Your task to perform on an android device: uninstall "Reddit" Image 0: 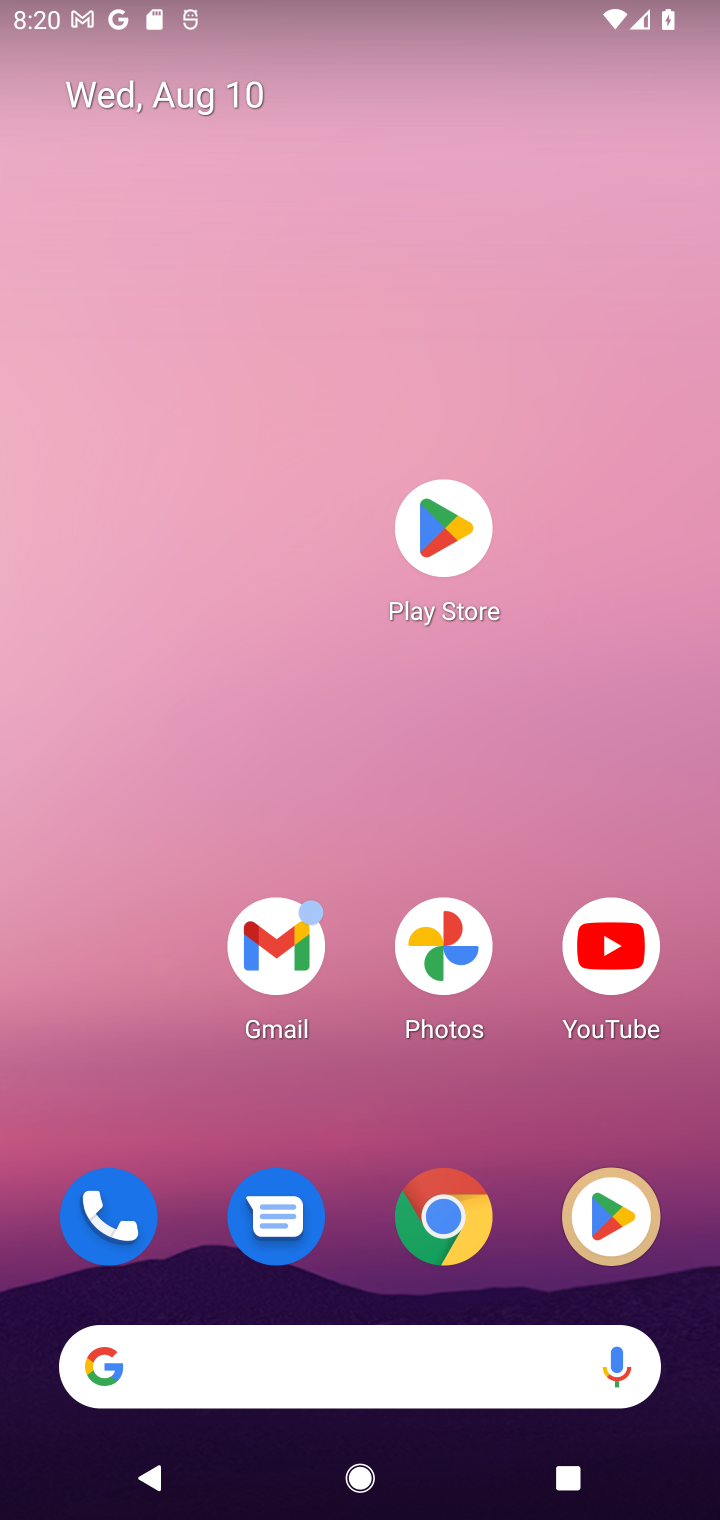
Step 0: click (450, 537)
Your task to perform on an android device: uninstall "Reddit" Image 1: 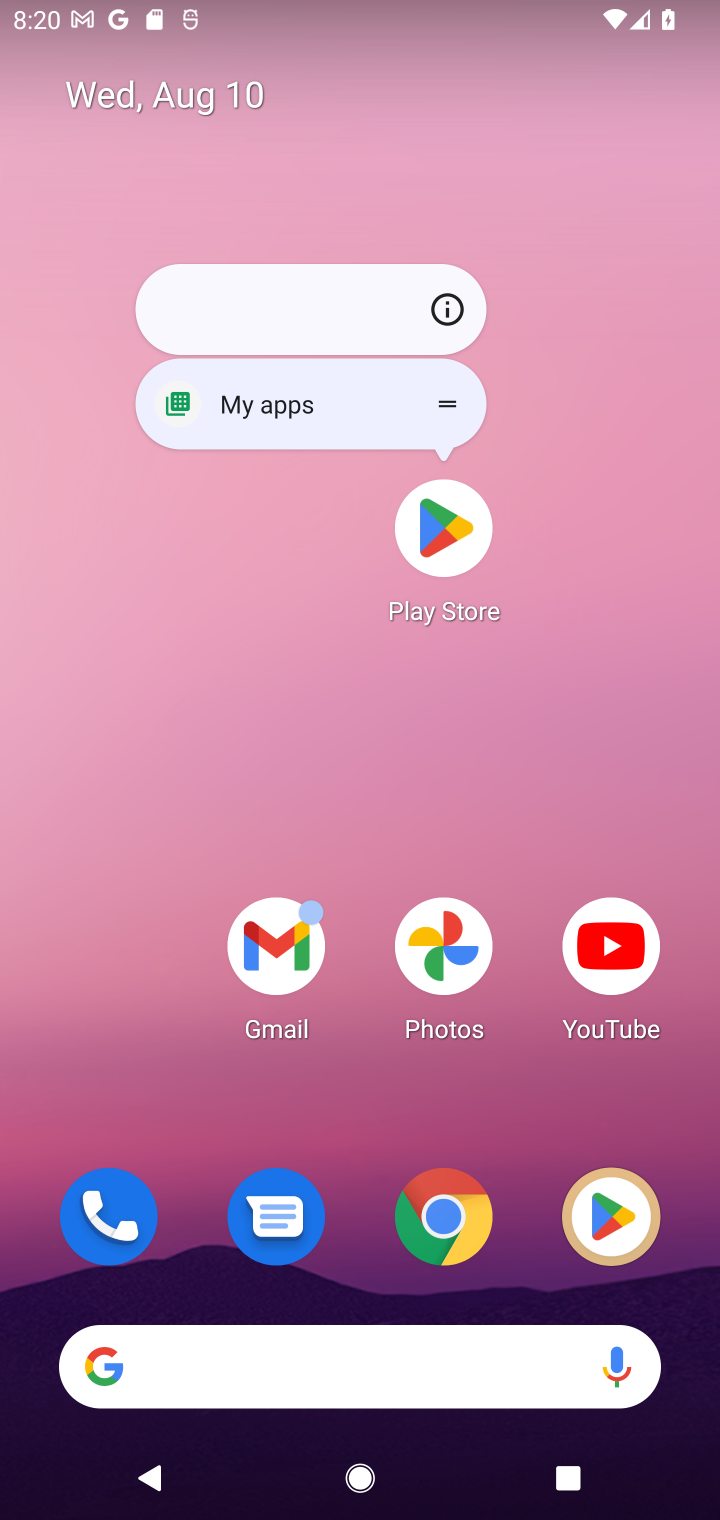
Step 1: click (450, 540)
Your task to perform on an android device: uninstall "Reddit" Image 2: 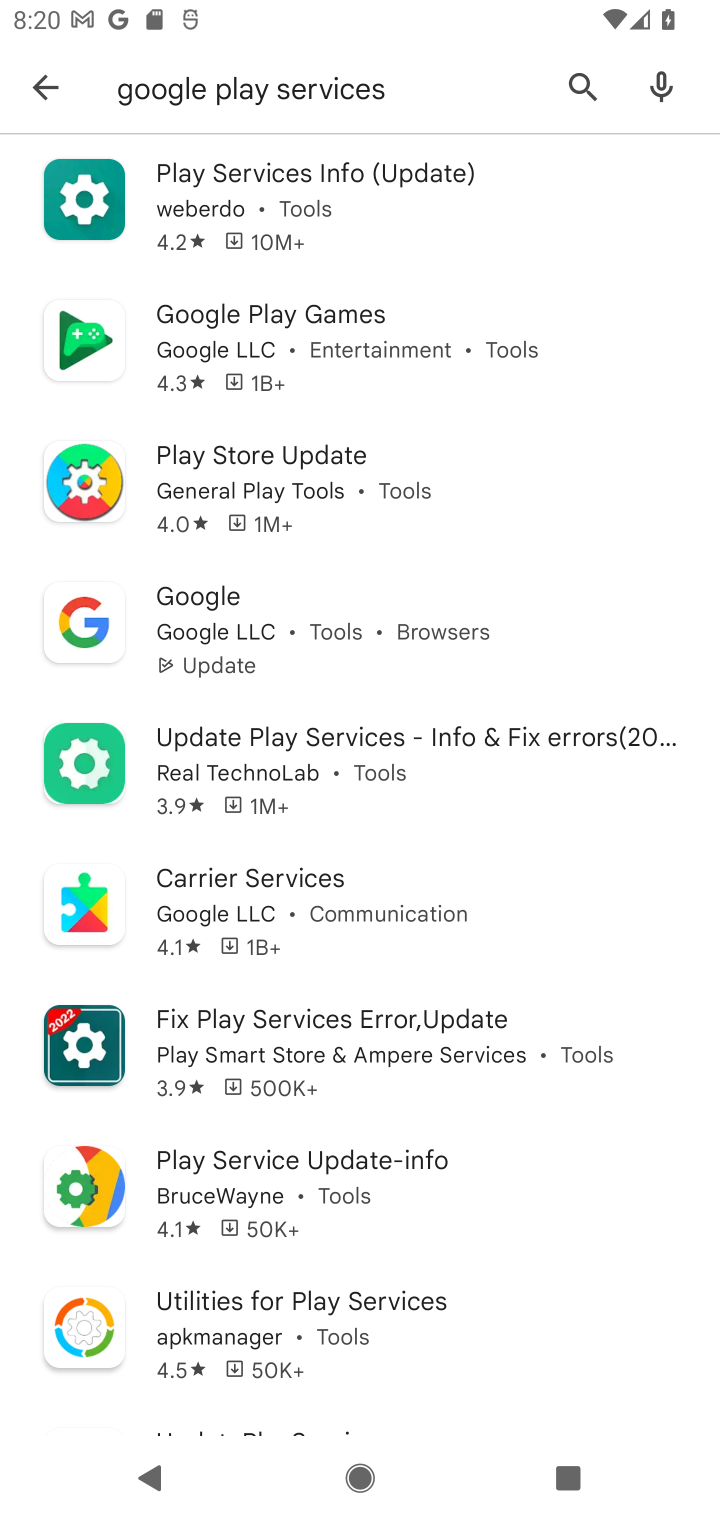
Step 2: click (576, 75)
Your task to perform on an android device: uninstall "Reddit" Image 3: 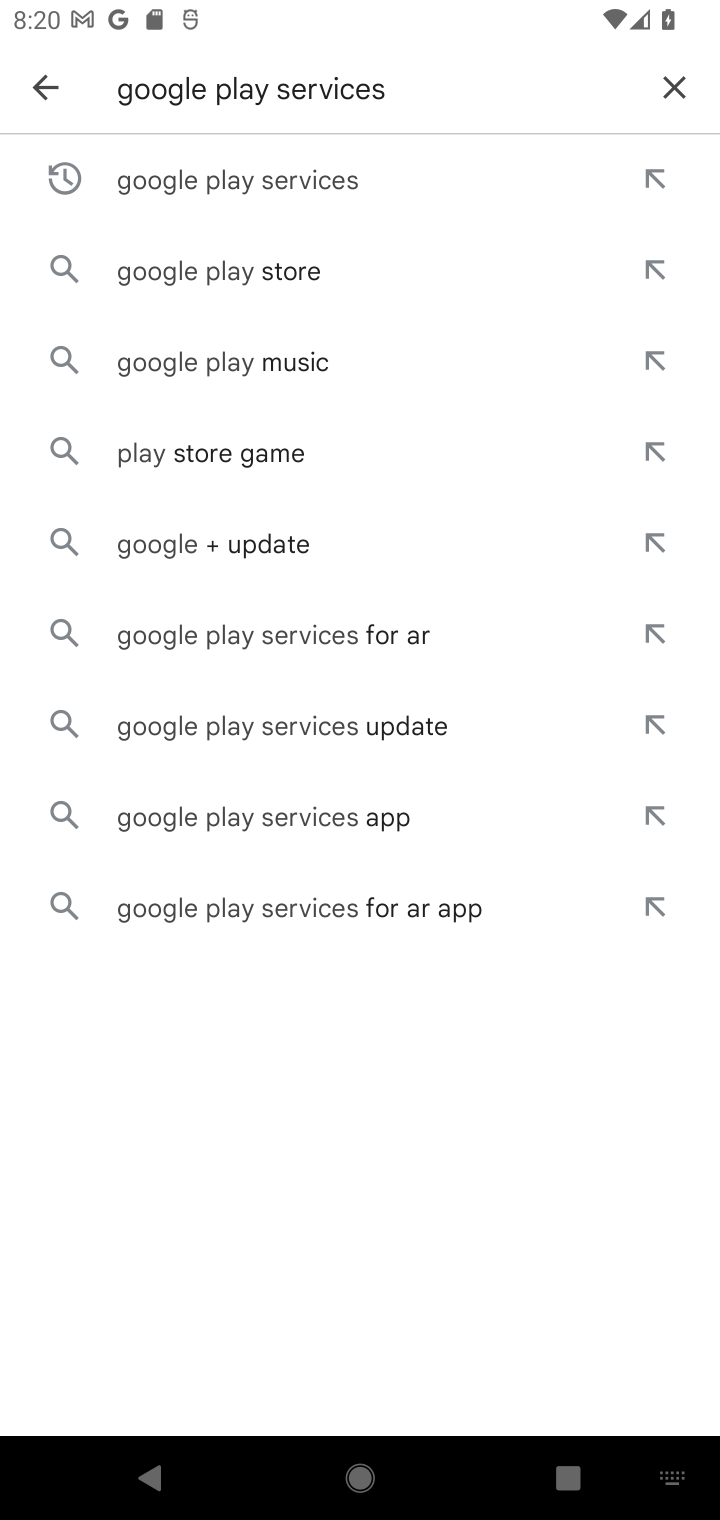
Step 3: click (666, 81)
Your task to perform on an android device: uninstall "Reddit" Image 4: 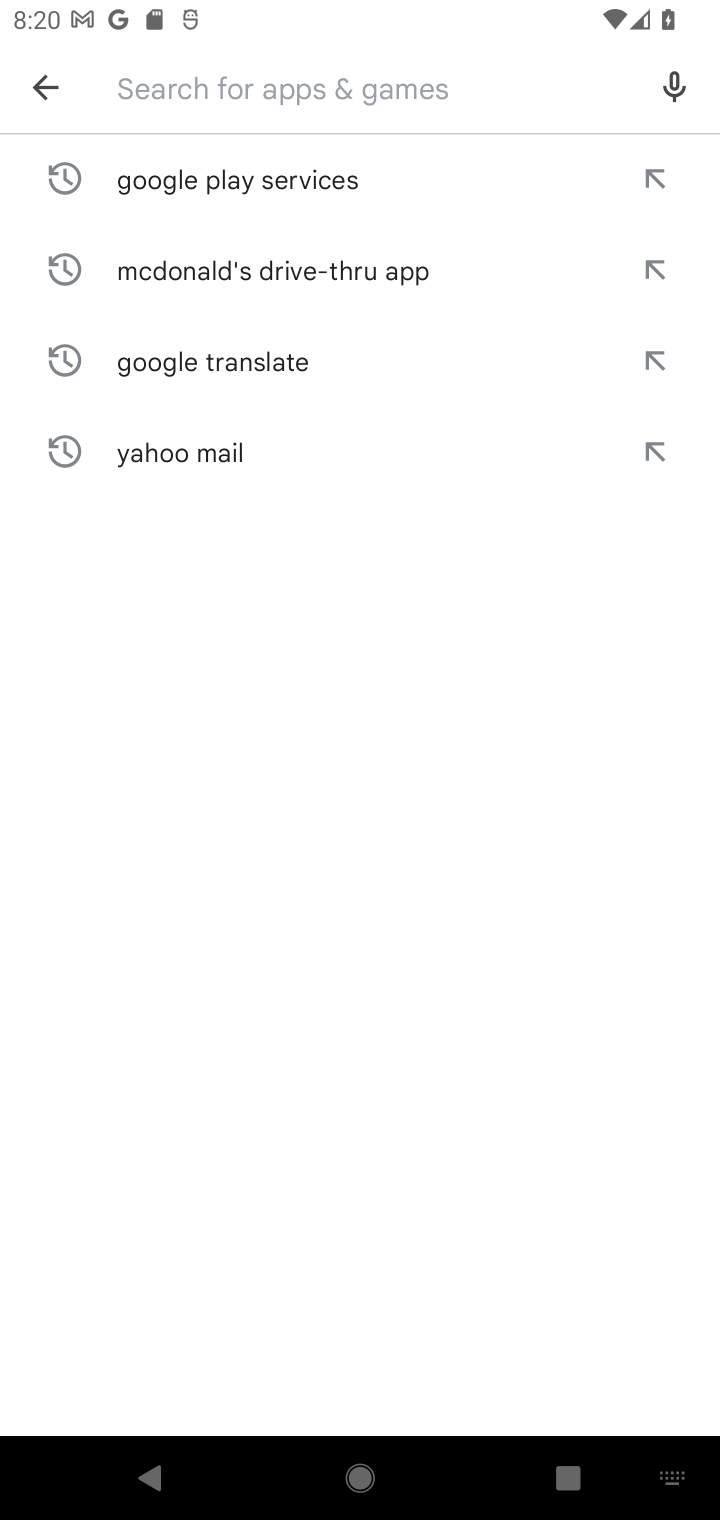
Step 4: type "Reddit"
Your task to perform on an android device: uninstall "Reddit" Image 5: 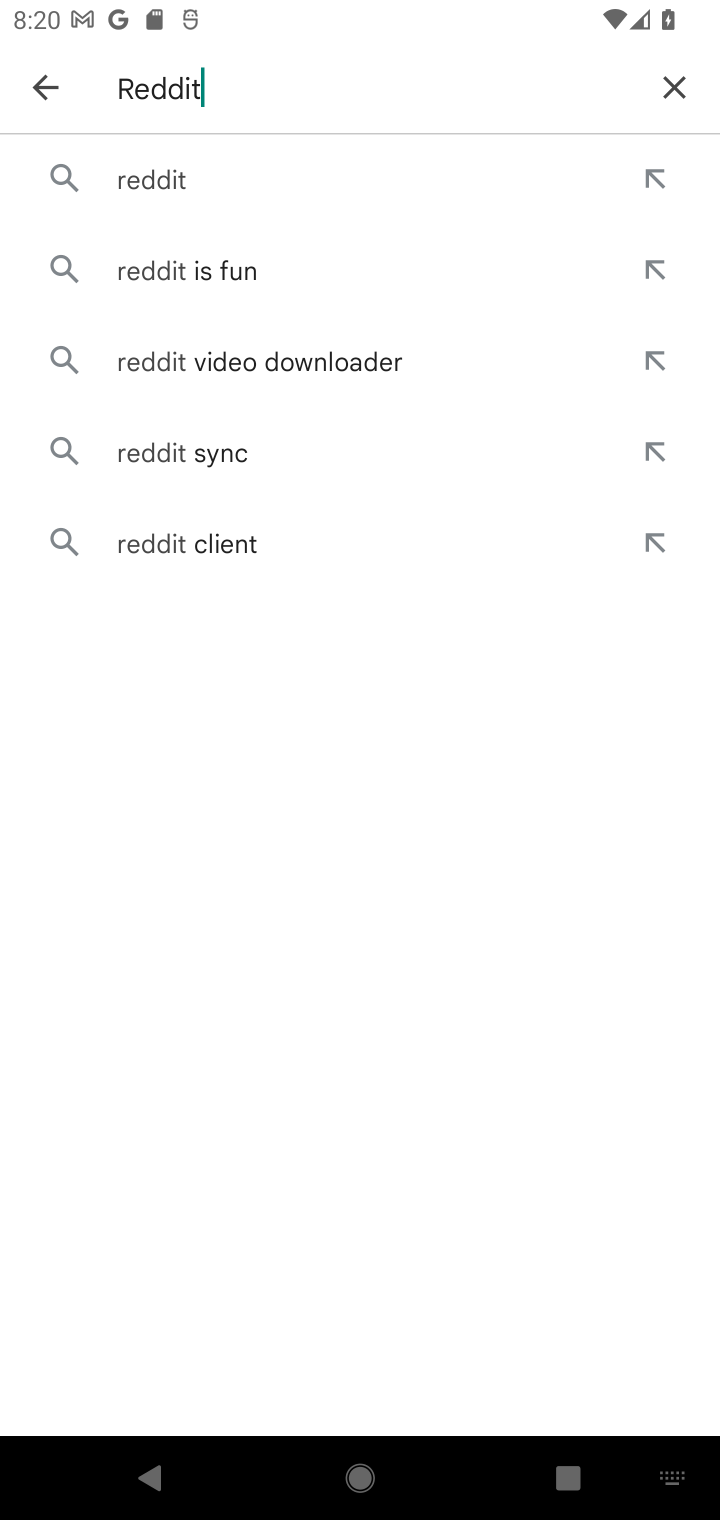
Step 5: click (156, 175)
Your task to perform on an android device: uninstall "Reddit" Image 6: 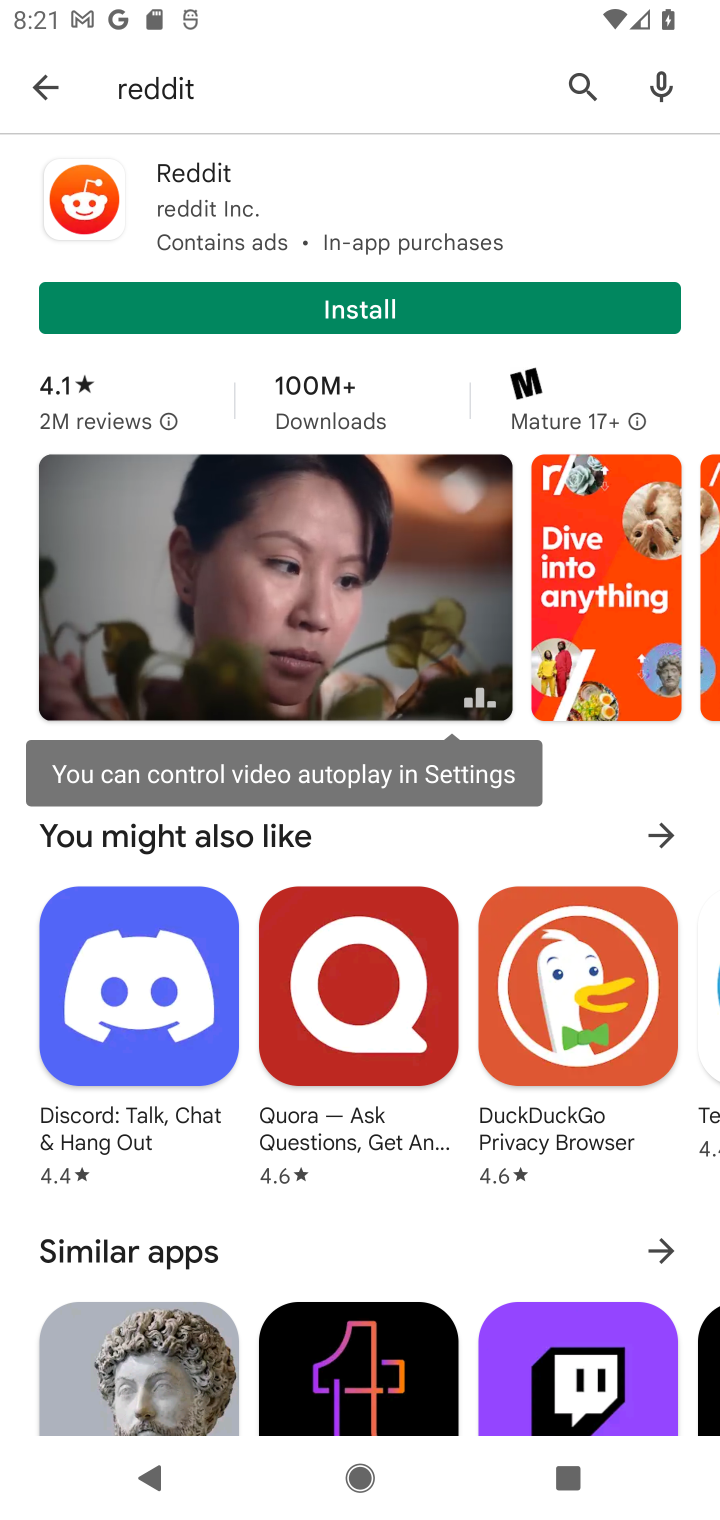
Step 6: task complete